Your task to perform on an android device: turn on sleep mode Image 0: 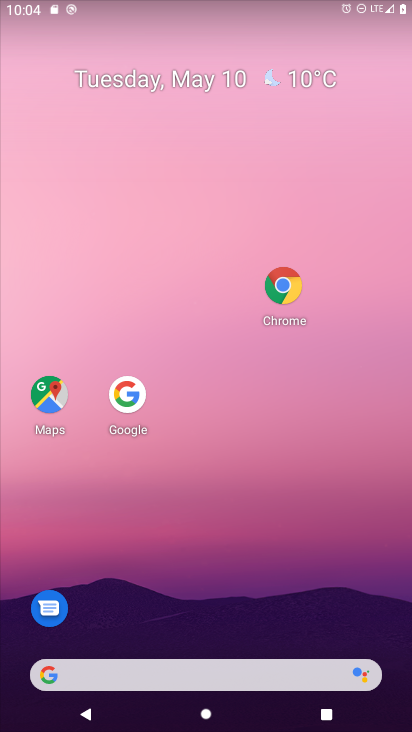
Step 0: drag from (170, 673) to (351, 53)
Your task to perform on an android device: turn on sleep mode Image 1: 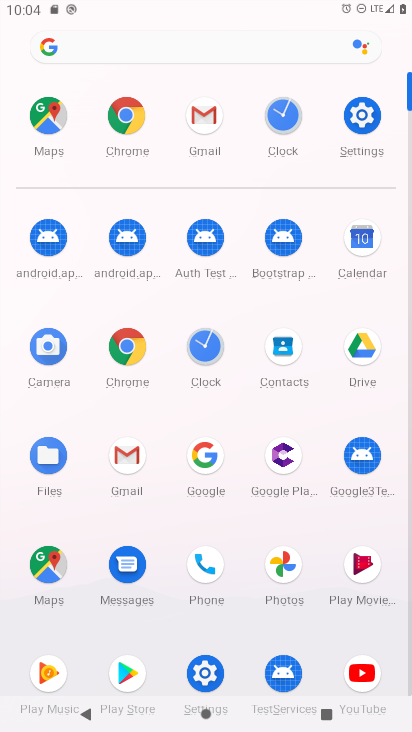
Step 1: click (359, 121)
Your task to perform on an android device: turn on sleep mode Image 2: 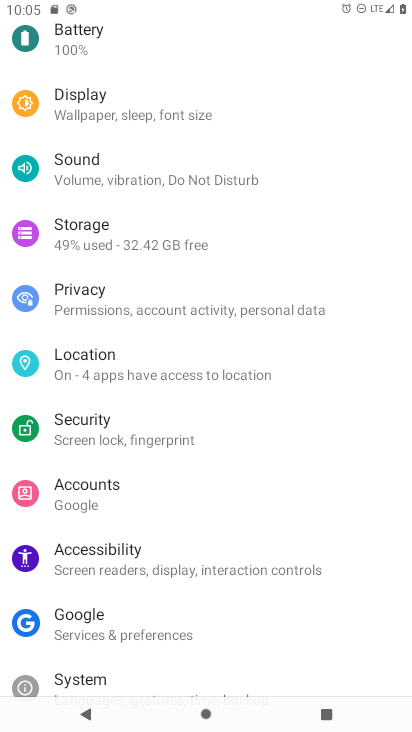
Step 2: click (171, 114)
Your task to perform on an android device: turn on sleep mode Image 3: 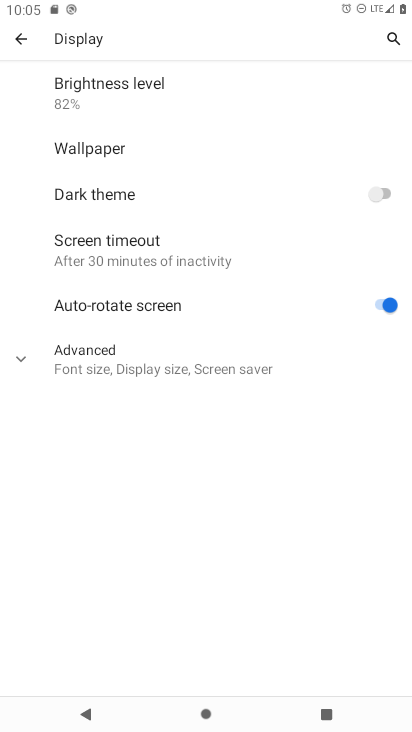
Step 3: task complete